Your task to perform on an android device: open a bookmark in the chrome app Image 0: 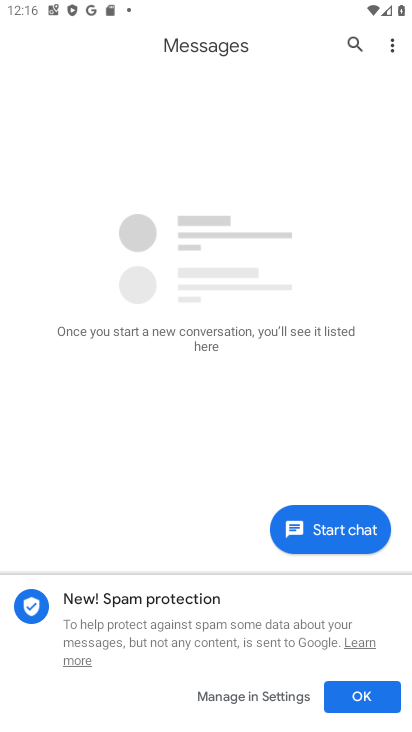
Step 0: press home button
Your task to perform on an android device: open a bookmark in the chrome app Image 1: 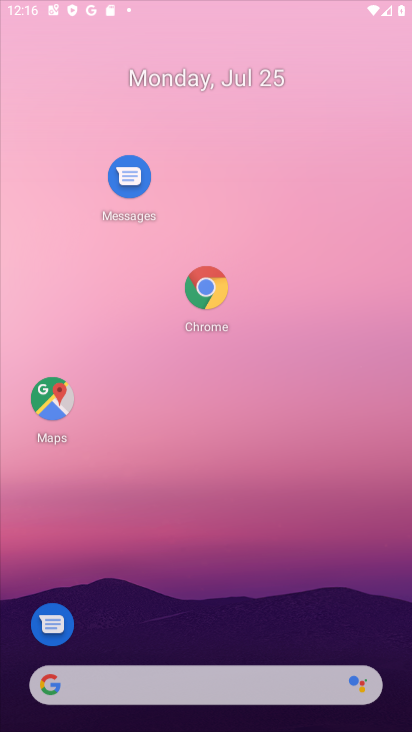
Step 1: drag from (275, 620) to (263, 198)
Your task to perform on an android device: open a bookmark in the chrome app Image 2: 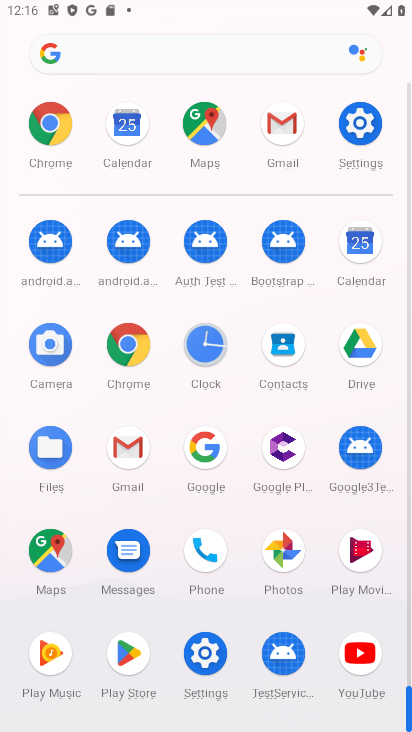
Step 2: click (43, 148)
Your task to perform on an android device: open a bookmark in the chrome app Image 3: 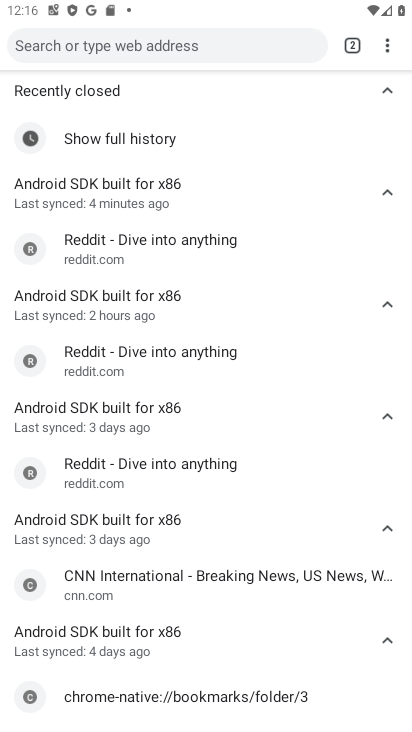
Step 3: task complete